Your task to perform on an android device: Go to location settings Image 0: 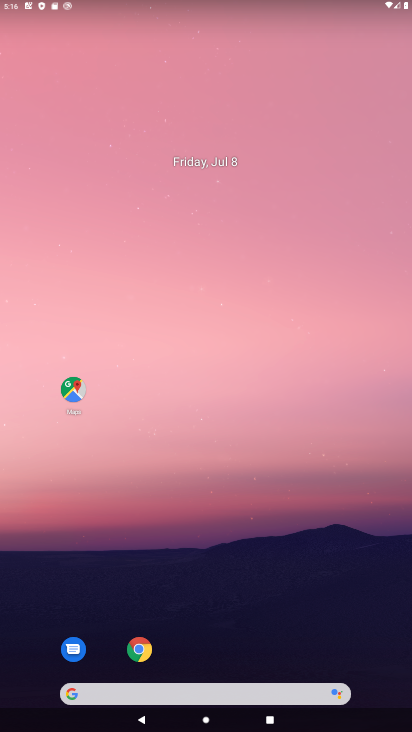
Step 0: drag from (285, 304) to (272, 51)
Your task to perform on an android device: Go to location settings Image 1: 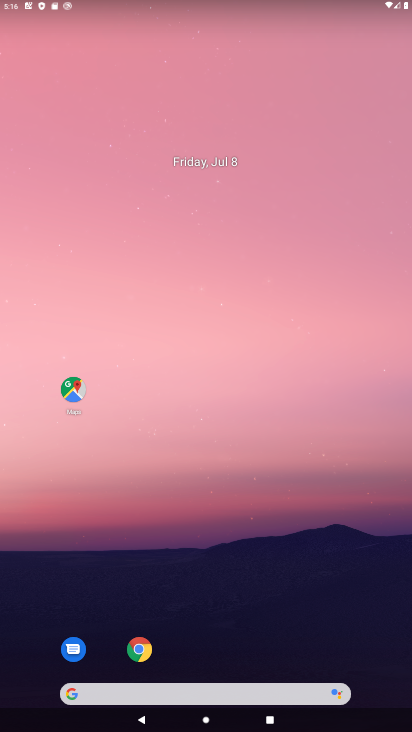
Step 1: drag from (274, 426) to (192, 45)
Your task to perform on an android device: Go to location settings Image 2: 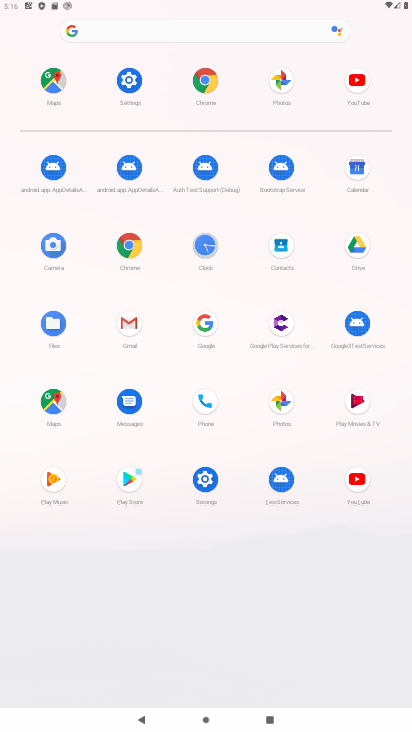
Step 2: click (134, 79)
Your task to perform on an android device: Go to location settings Image 3: 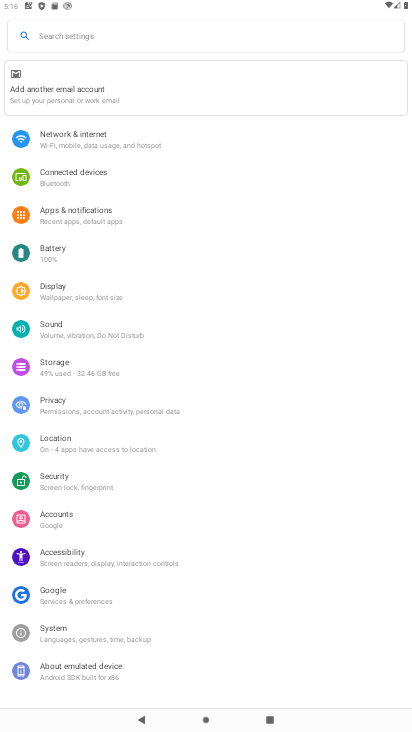
Step 3: click (98, 452)
Your task to perform on an android device: Go to location settings Image 4: 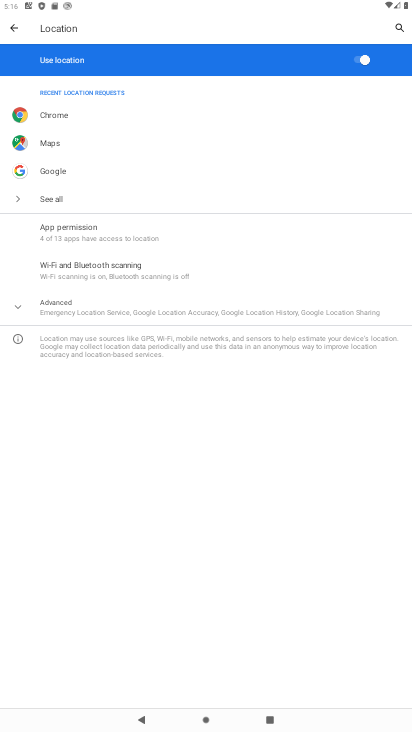
Step 4: click (133, 310)
Your task to perform on an android device: Go to location settings Image 5: 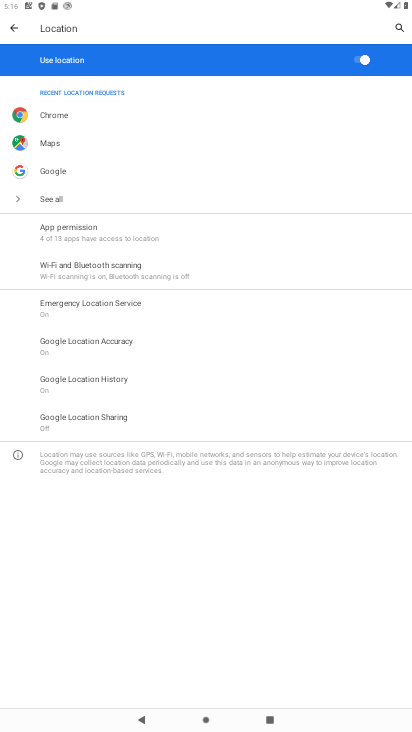
Step 5: task complete